Your task to perform on an android device: Search for sushi restaurants on Maps Image 0: 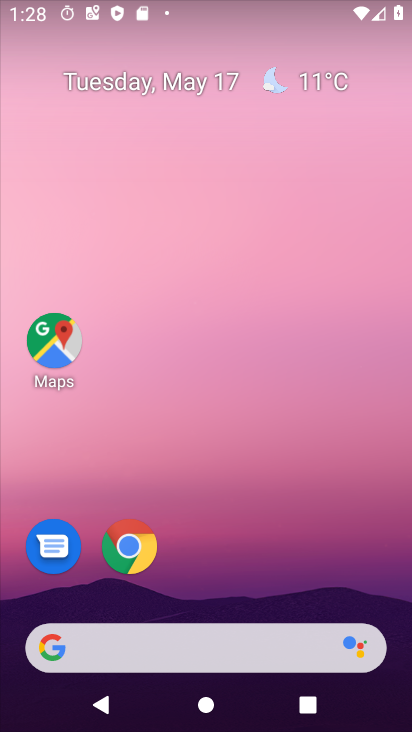
Step 0: press home button
Your task to perform on an android device: Search for sushi restaurants on Maps Image 1: 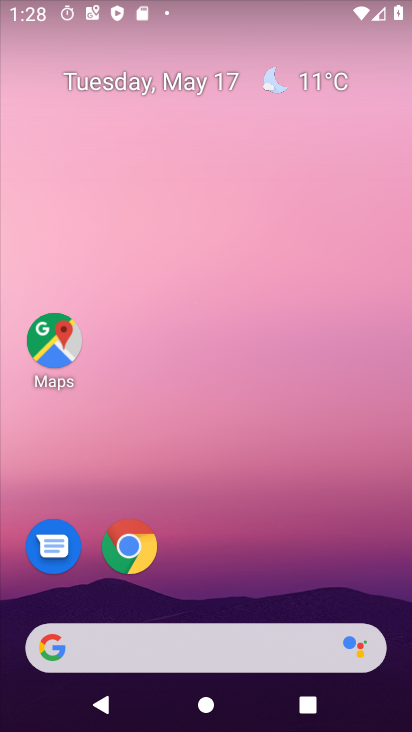
Step 1: click (50, 341)
Your task to perform on an android device: Search for sushi restaurants on Maps Image 2: 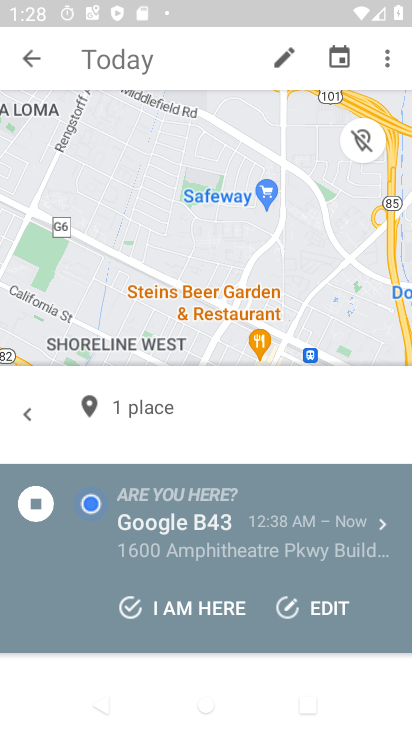
Step 2: click (37, 55)
Your task to perform on an android device: Search for sushi restaurants on Maps Image 3: 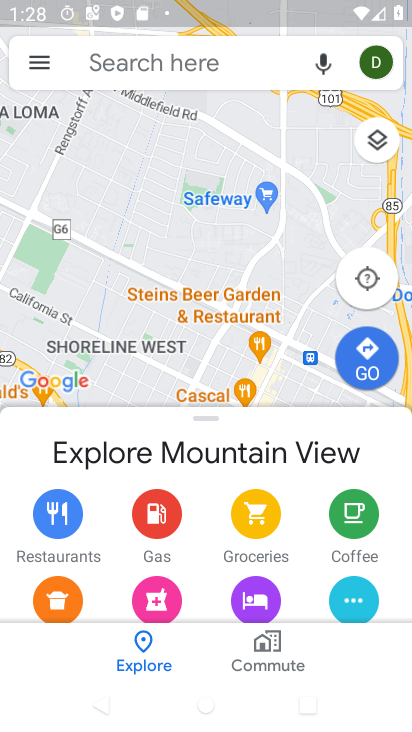
Step 3: click (170, 62)
Your task to perform on an android device: Search for sushi restaurants on Maps Image 4: 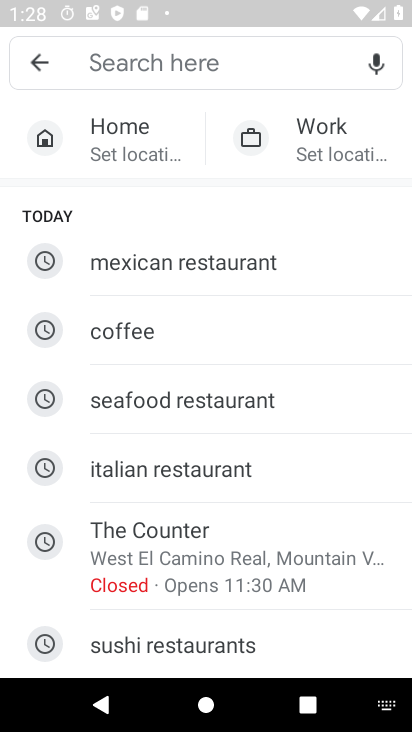
Step 4: click (187, 643)
Your task to perform on an android device: Search for sushi restaurants on Maps Image 5: 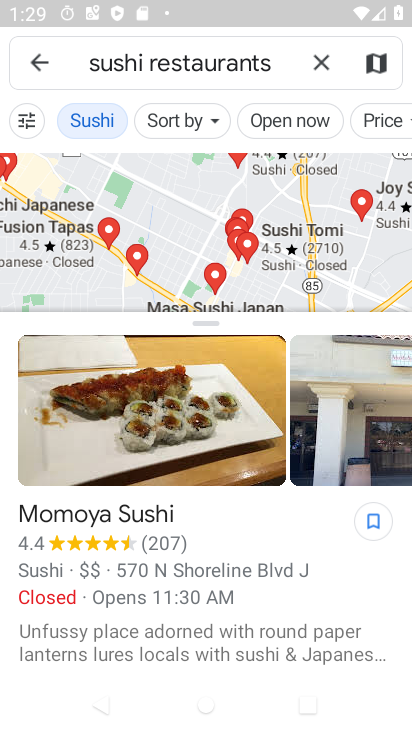
Step 5: task complete